Your task to perform on an android device: turn on wifi Image 0: 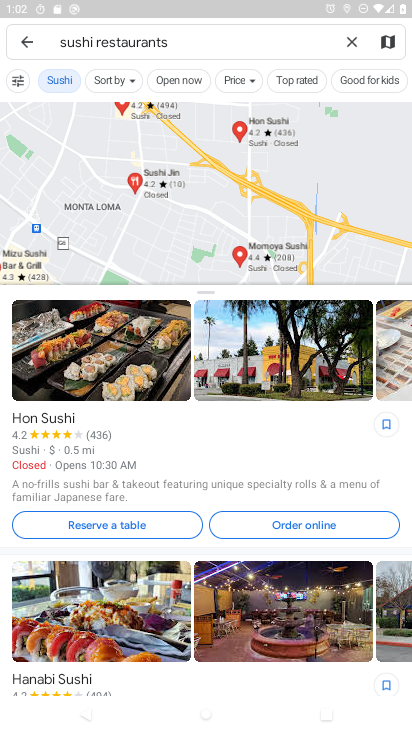
Step 0: press home button
Your task to perform on an android device: turn on wifi Image 1: 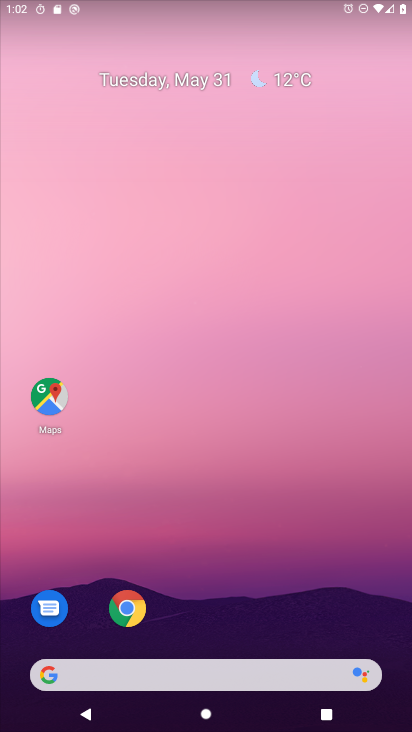
Step 1: drag from (239, 648) to (258, 11)
Your task to perform on an android device: turn on wifi Image 2: 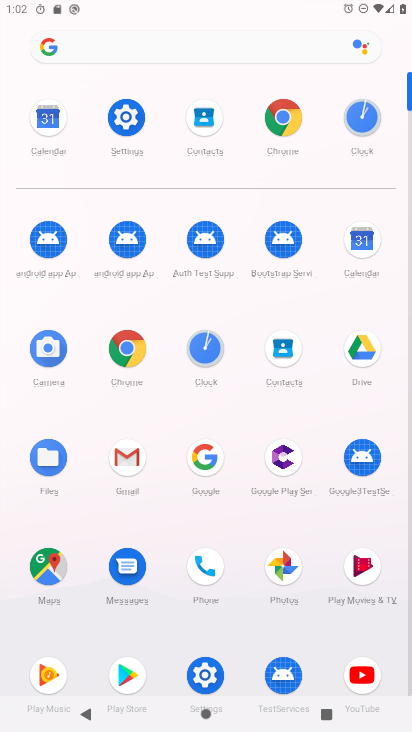
Step 2: click (128, 117)
Your task to perform on an android device: turn on wifi Image 3: 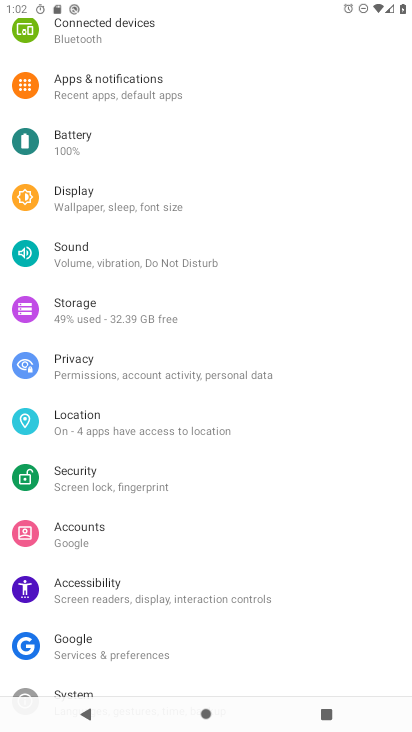
Step 3: drag from (208, 98) to (199, 318)
Your task to perform on an android device: turn on wifi Image 4: 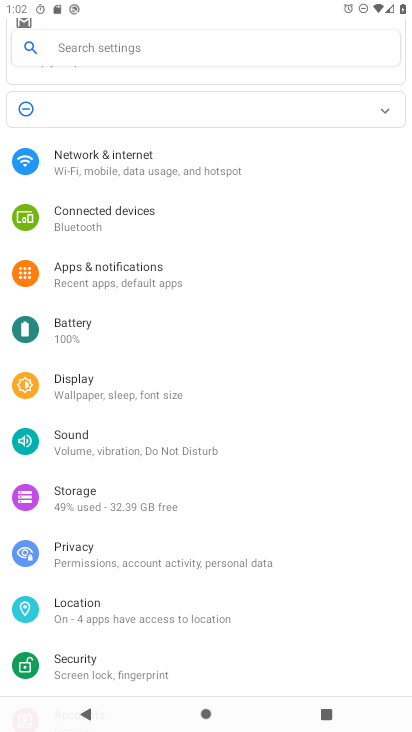
Step 4: click (92, 163)
Your task to perform on an android device: turn on wifi Image 5: 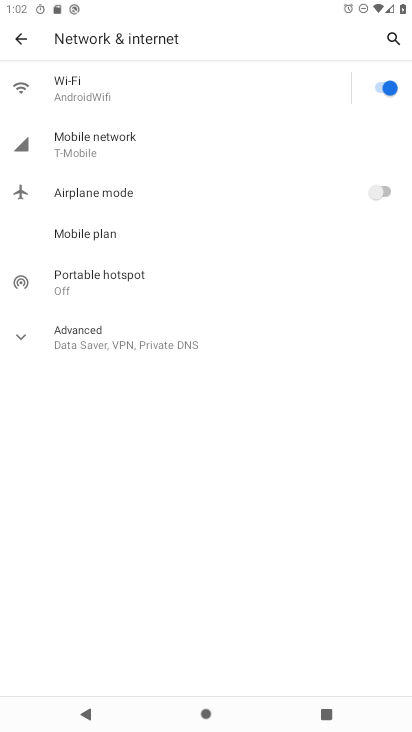
Step 5: task complete